Your task to perform on an android device: Open Youtube and go to "Your channel" Image 0: 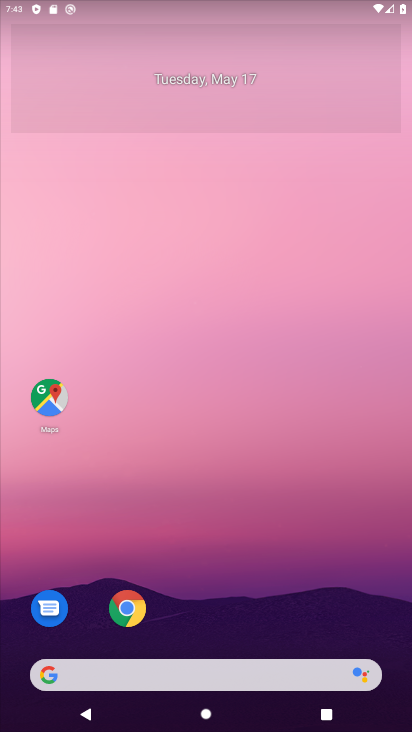
Step 0: drag from (277, 580) to (314, 161)
Your task to perform on an android device: Open Youtube and go to "Your channel" Image 1: 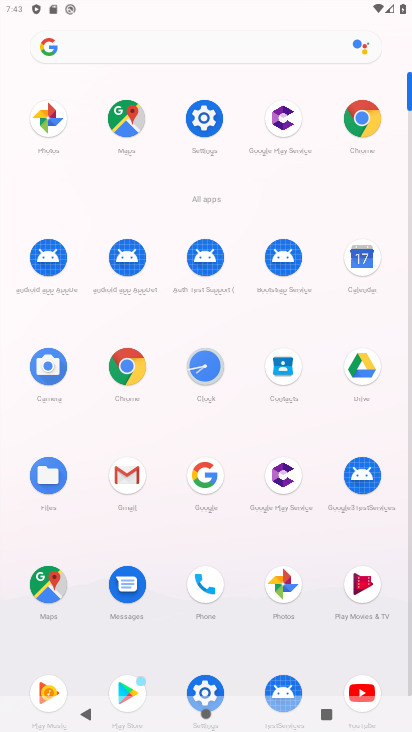
Step 1: click (369, 684)
Your task to perform on an android device: Open Youtube and go to "Your channel" Image 2: 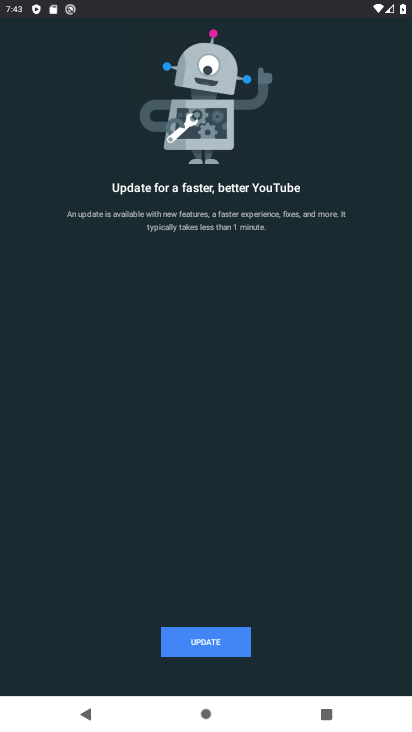
Step 2: click (182, 647)
Your task to perform on an android device: Open Youtube and go to "Your channel" Image 3: 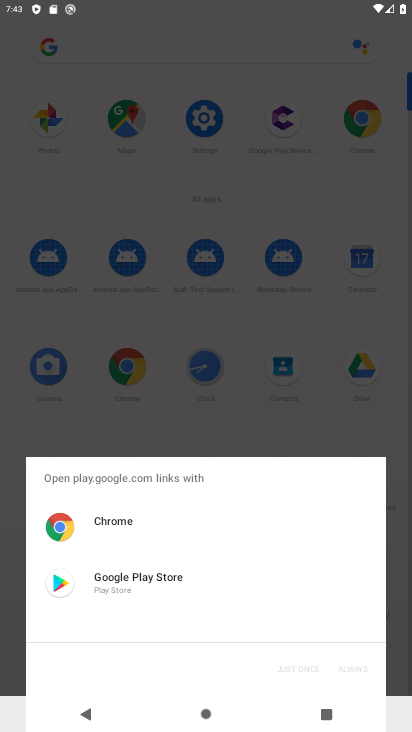
Step 3: click (151, 571)
Your task to perform on an android device: Open Youtube and go to "Your channel" Image 4: 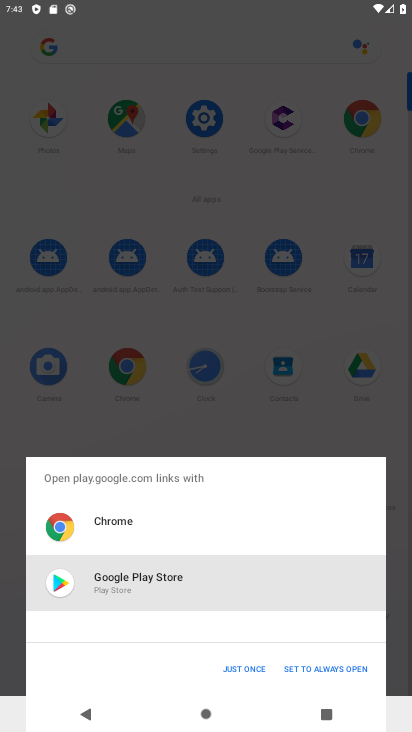
Step 4: click (287, 667)
Your task to perform on an android device: Open Youtube and go to "Your channel" Image 5: 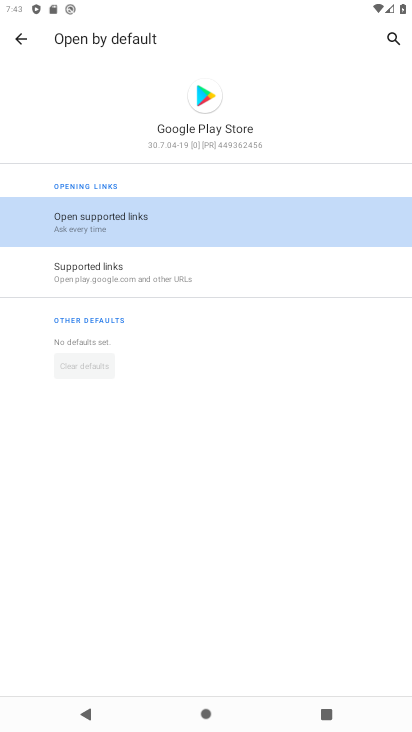
Step 5: click (32, 39)
Your task to perform on an android device: Open Youtube and go to "Your channel" Image 6: 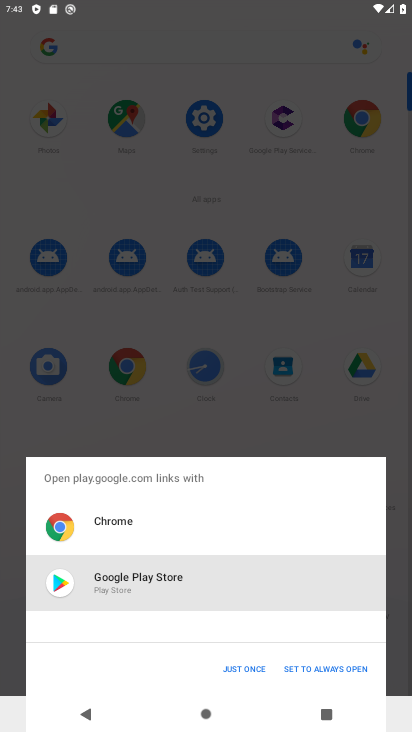
Step 6: click (240, 674)
Your task to perform on an android device: Open Youtube and go to "Your channel" Image 7: 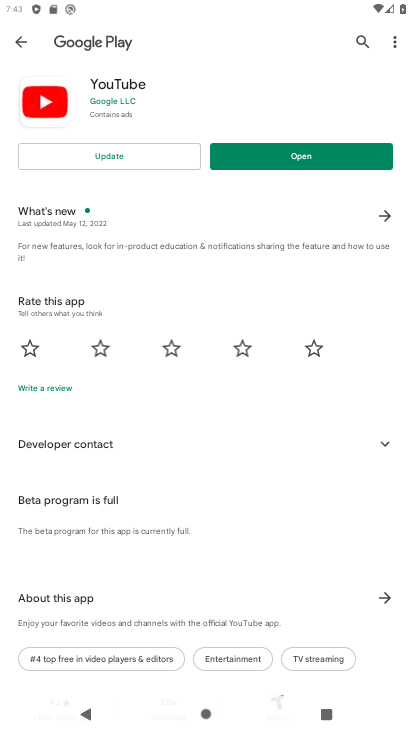
Step 7: click (142, 165)
Your task to perform on an android device: Open Youtube and go to "Your channel" Image 8: 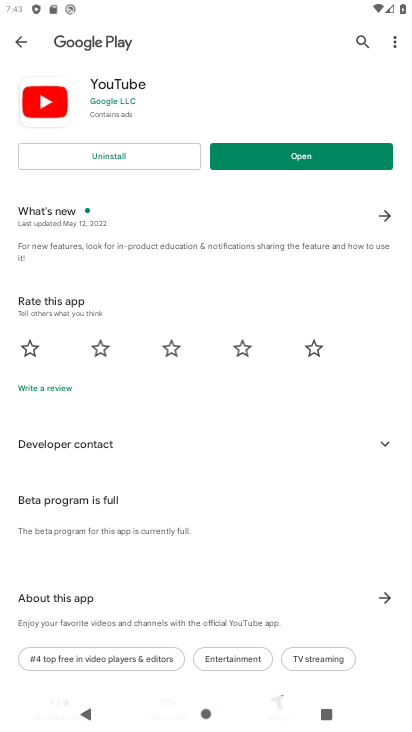
Step 8: click (301, 155)
Your task to perform on an android device: Open Youtube and go to "Your channel" Image 9: 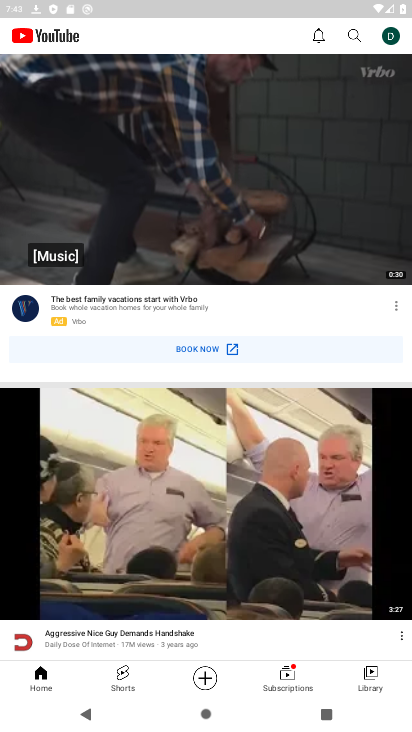
Step 9: click (391, 41)
Your task to perform on an android device: Open Youtube and go to "Your channel" Image 10: 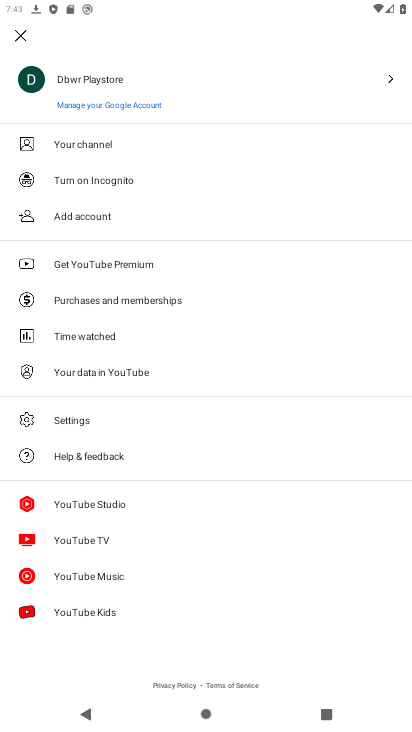
Step 10: click (99, 140)
Your task to perform on an android device: Open Youtube and go to "Your channel" Image 11: 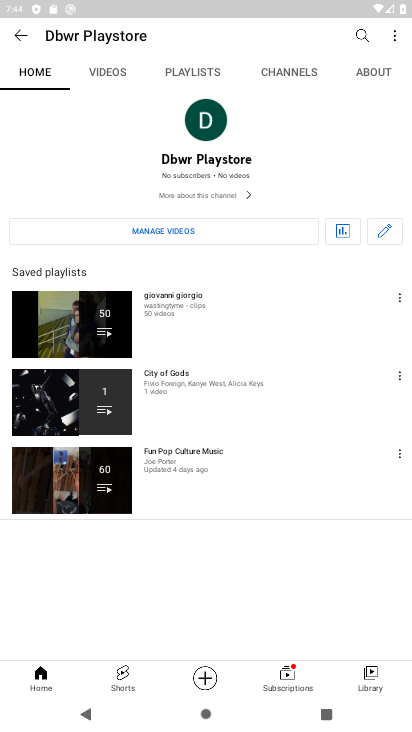
Step 11: task complete